Your task to perform on an android device: Do I have any events tomorrow? Image 0: 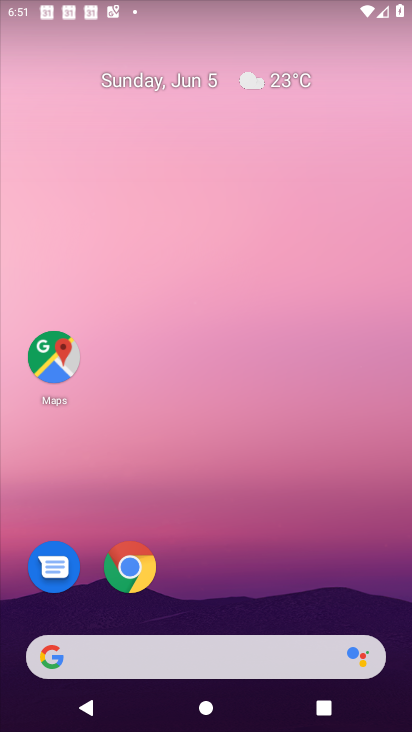
Step 0: click (370, 618)
Your task to perform on an android device: Do I have any events tomorrow? Image 1: 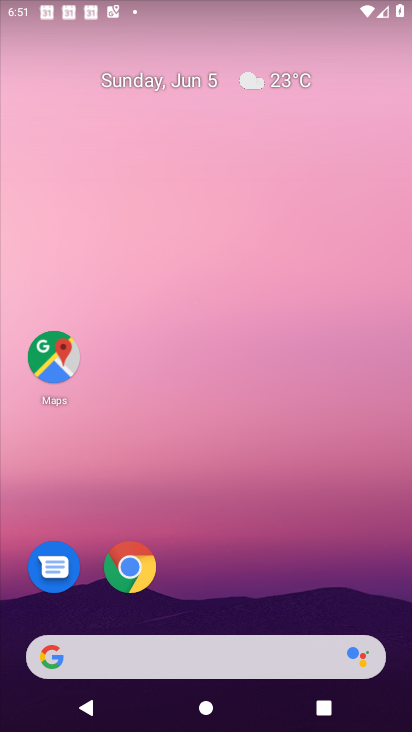
Step 1: drag from (344, 386) to (243, 24)
Your task to perform on an android device: Do I have any events tomorrow? Image 2: 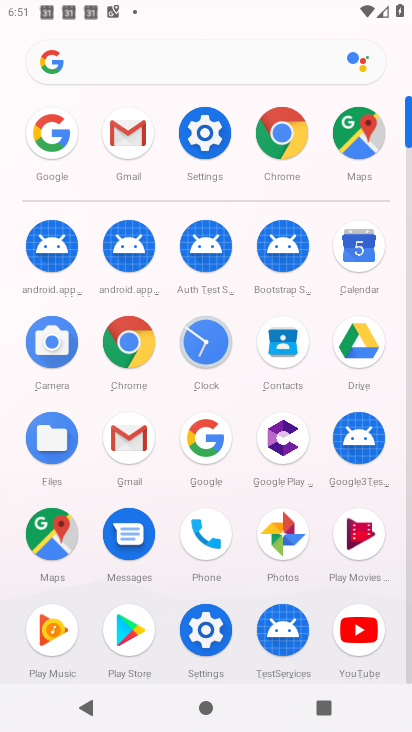
Step 2: click (350, 251)
Your task to perform on an android device: Do I have any events tomorrow? Image 3: 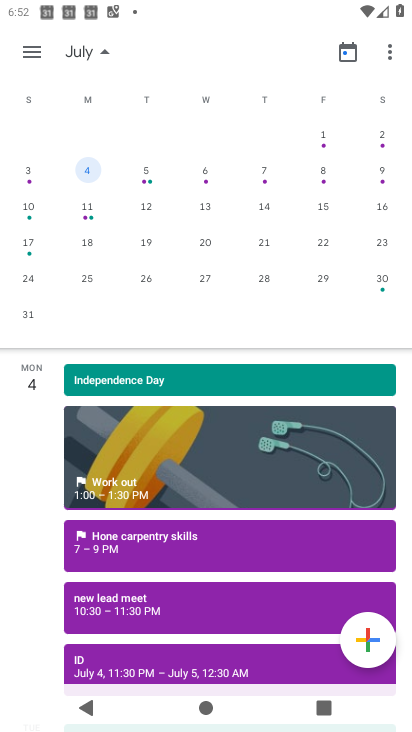
Step 3: drag from (39, 199) to (331, 218)
Your task to perform on an android device: Do I have any events tomorrow? Image 4: 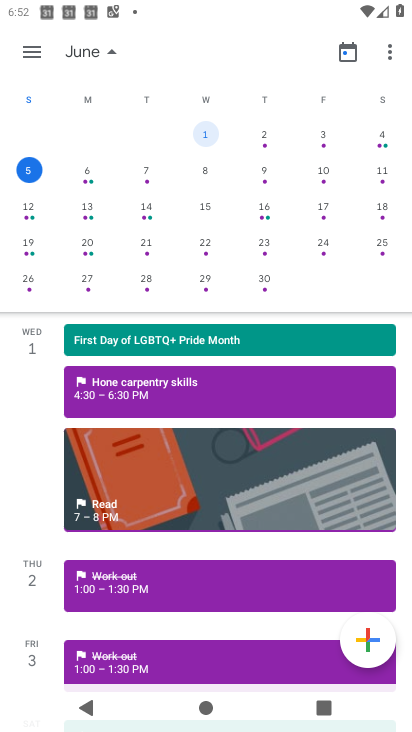
Step 4: click (151, 169)
Your task to perform on an android device: Do I have any events tomorrow? Image 5: 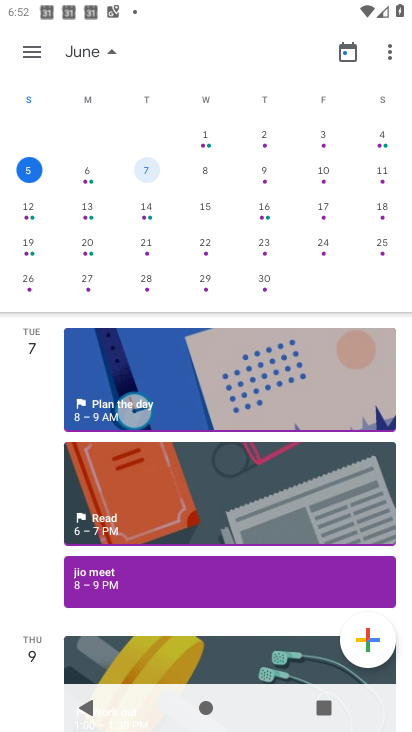
Step 5: click (269, 464)
Your task to perform on an android device: Do I have any events tomorrow? Image 6: 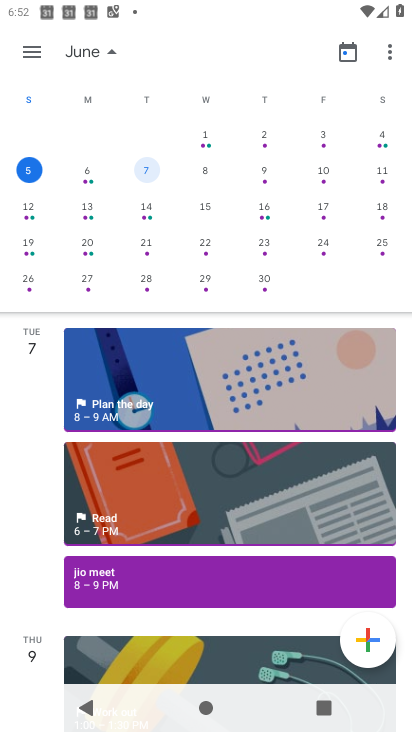
Step 6: click (226, 397)
Your task to perform on an android device: Do I have any events tomorrow? Image 7: 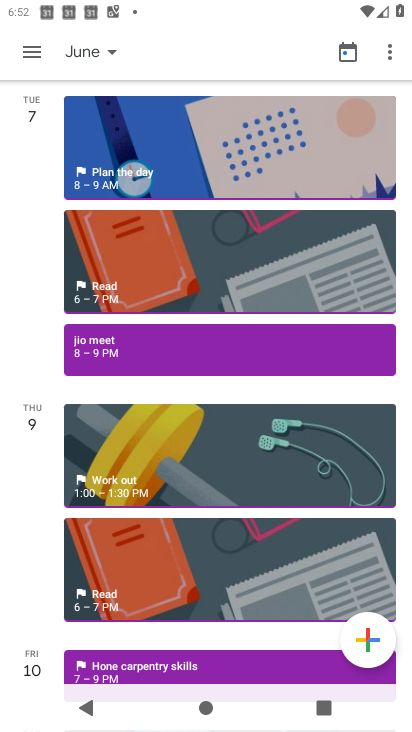
Step 7: click (164, 140)
Your task to perform on an android device: Do I have any events tomorrow? Image 8: 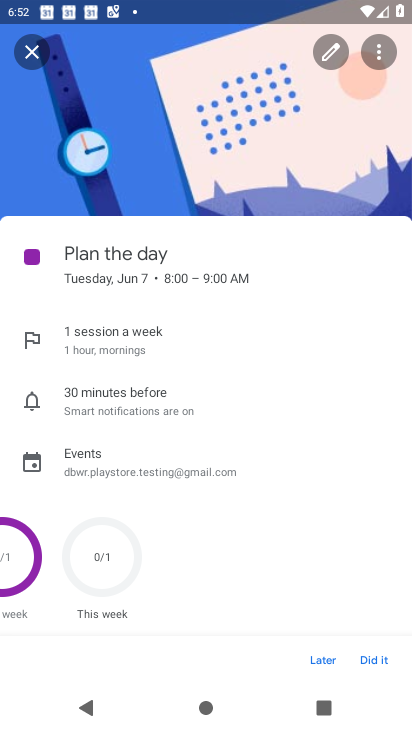
Step 8: task complete